Your task to perform on an android device: check google app version Image 0: 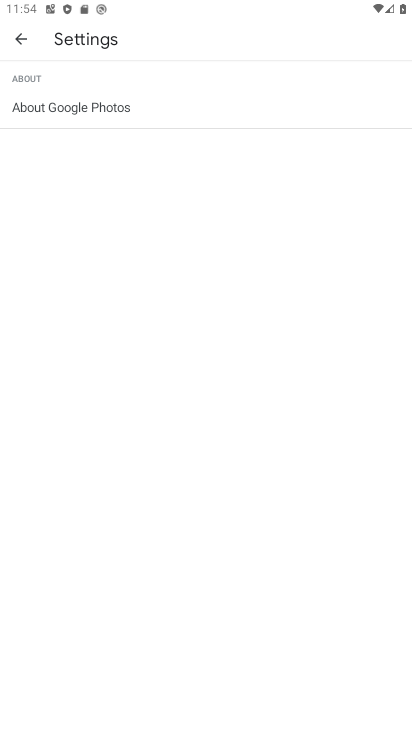
Step 0: click (24, 42)
Your task to perform on an android device: check google app version Image 1: 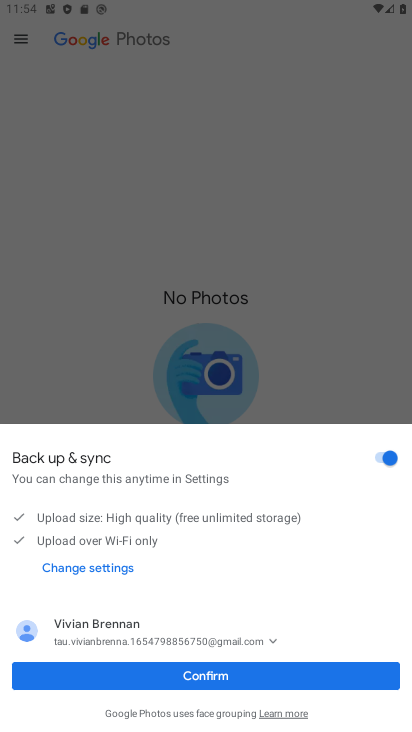
Step 1: press home button
Your task to perform on an android device: check google app version Image 2: 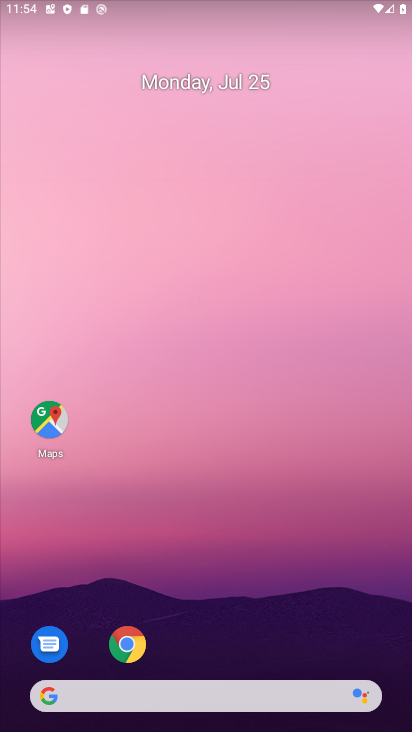
Step 2: drag from (190, 704) to (164, 97)
Your task to perform on an android device: check google app version Image 3: 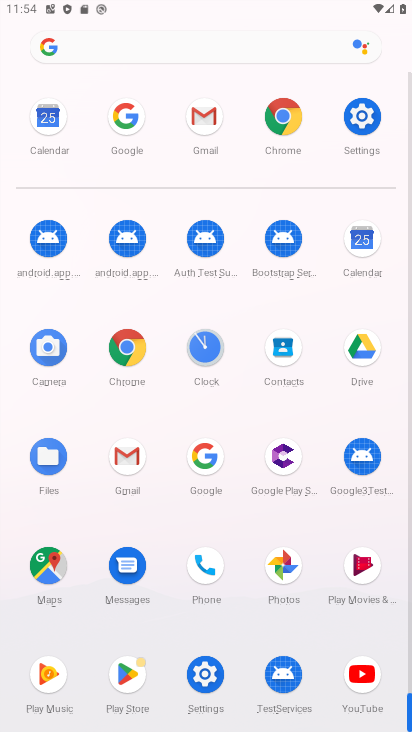
Step 3: click (201, 480)
Your task to perform on an android device: check google app version Image 4: 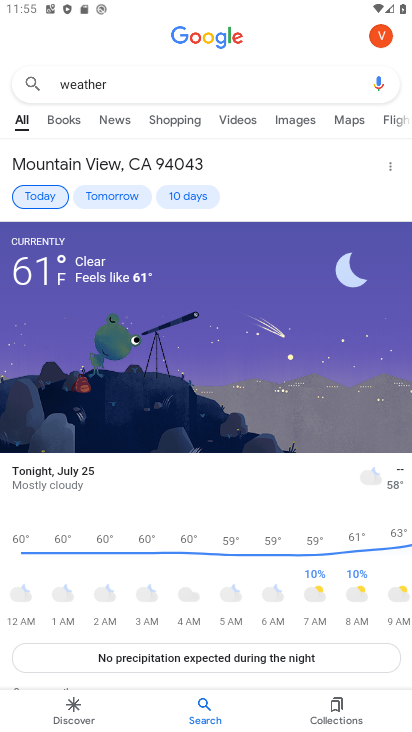
Step 4: click (378, 43)
Your task to perform on an android device: check google app version Image 5: 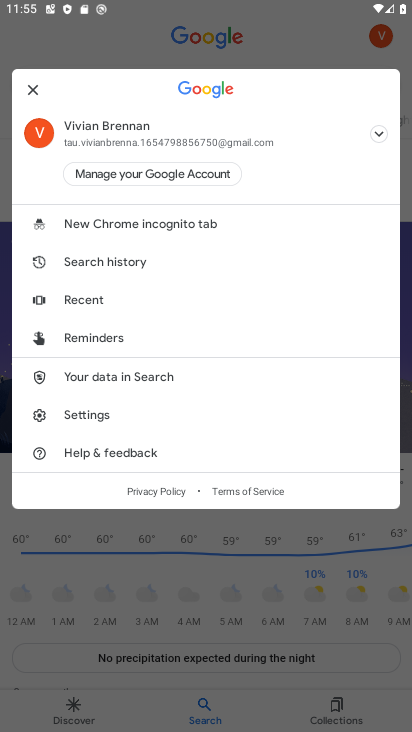
Step 5: click (87, 420)
Your task to perform on an android device: check google app version Image 6: 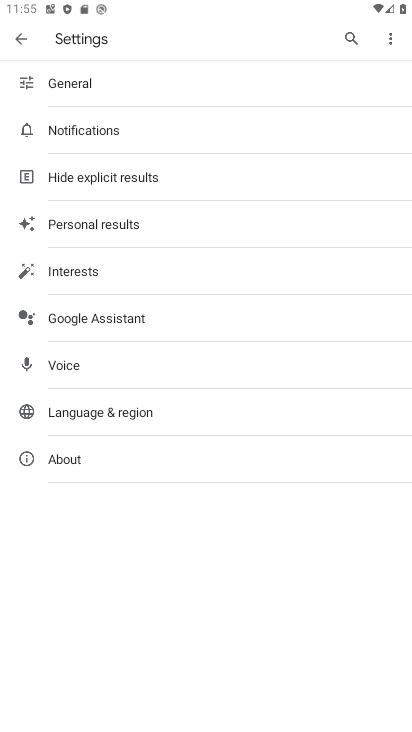
Step 6: click (41, 451)
Your task to perform on an android device: check google app version Image 7: 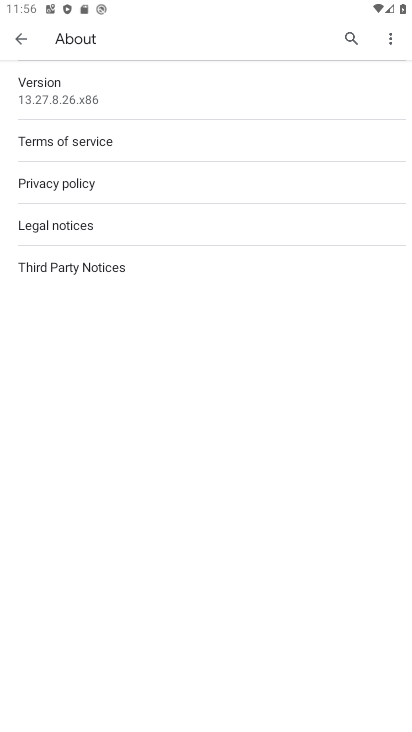
Step 7: task complete